Your task to perform on an android device: Open Chrome and go to settings Image 0: 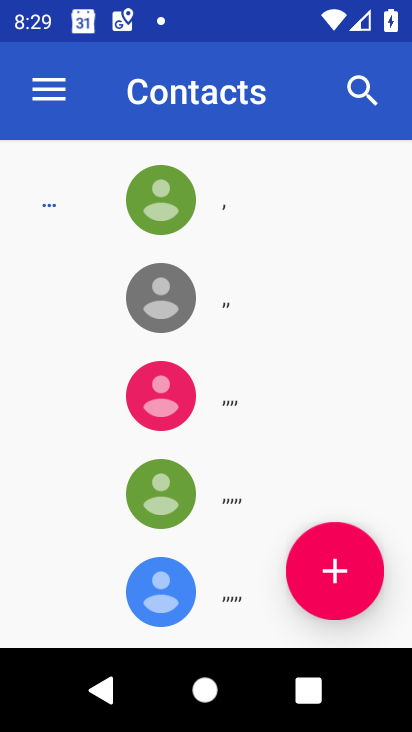
Step 0: press home button
Your task to perform on an android device: Open Chrome and go to settings Image 1: 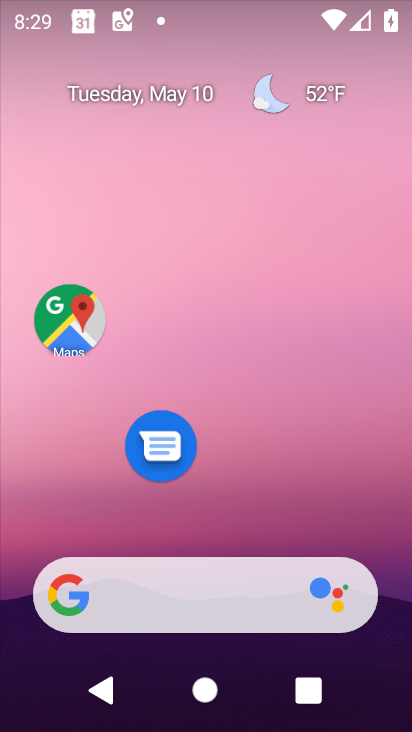
Step 1: drag from (202, 527) to (156, 8)
Your task to perform on an android device: Open Chrome and go to settings Image 2: 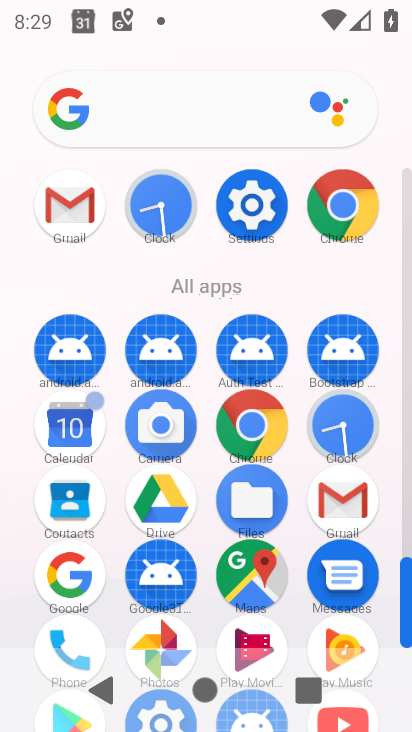
Step 2: click (246, 409)
Your task to perform on an android device: Open Chrome and go to settings Image 3: 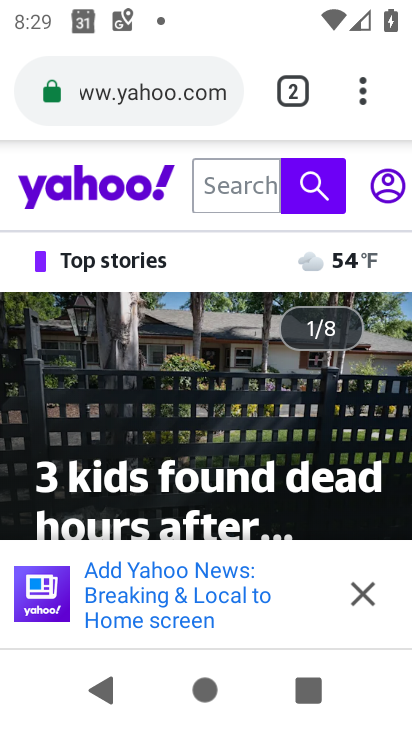
Step 3: click (357, 100)
Your task to perform on an android device: Open Chrome and go to settings Image 4: 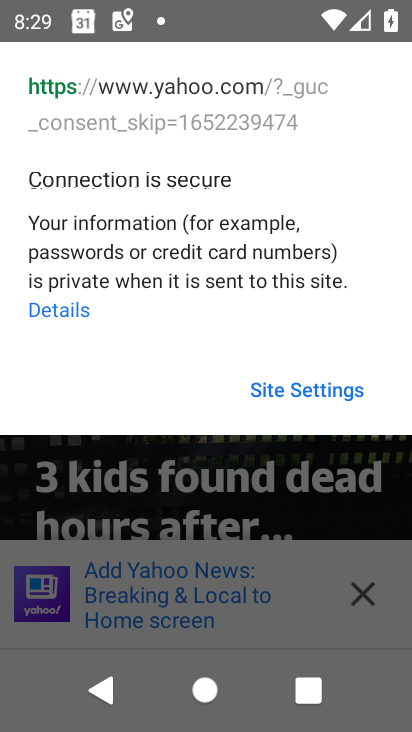
Step 4: click (324, 497)
Your task to perform on an android device: Open Chrome and go to settings Image 5: 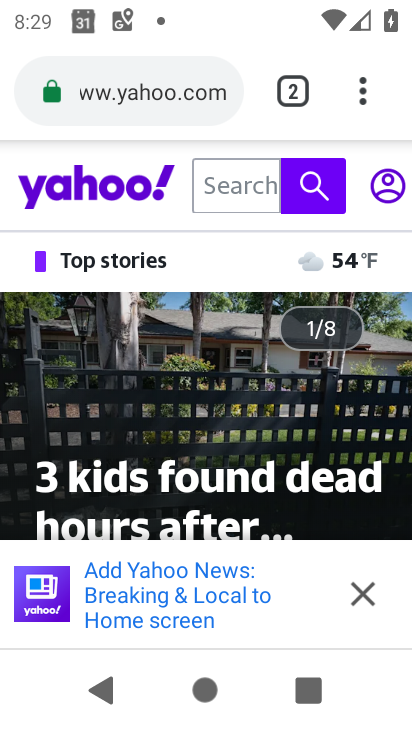
Step 5: task complete